Your task to perform on an android device: Toggle the flashlight Image 0: 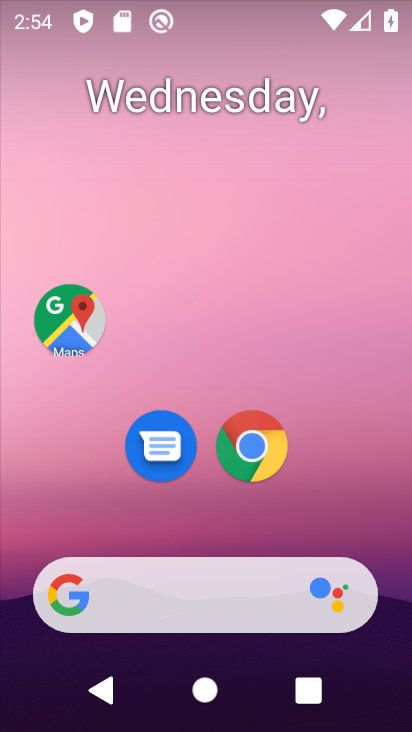
Step 0: drag from (329, 15) to (352, 415)
Your task to perform on an android device: Toggle the flashlight Image 1: 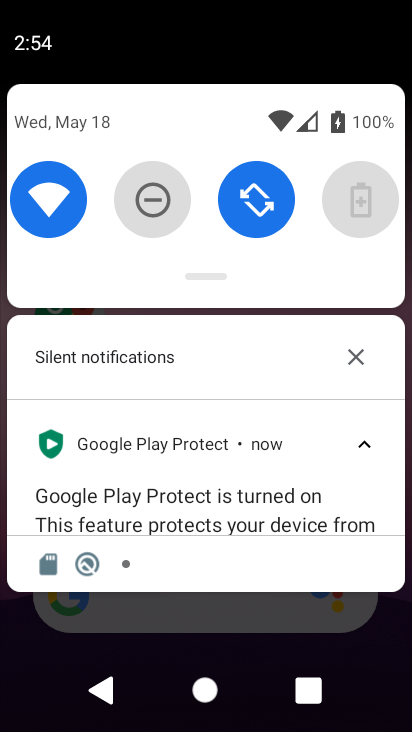
Step 1: drag from (248, 264) to (252, 585)
Your task to perform on an android device: Toggle the flashlight Image 2: 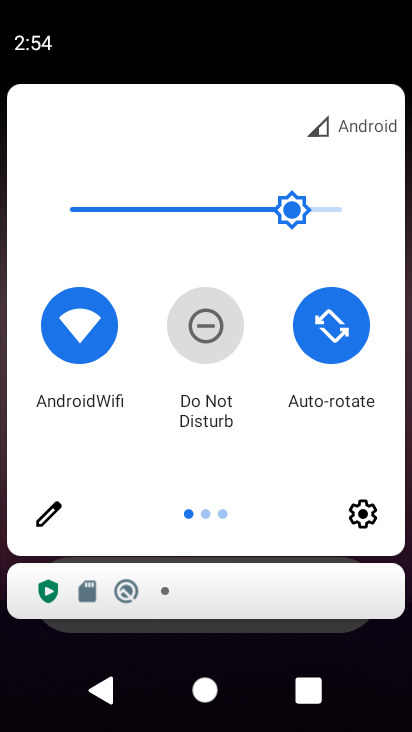
Step 2: click (57, 515)
Your task to perform on an android device: Toggle the flashlight Image 3: 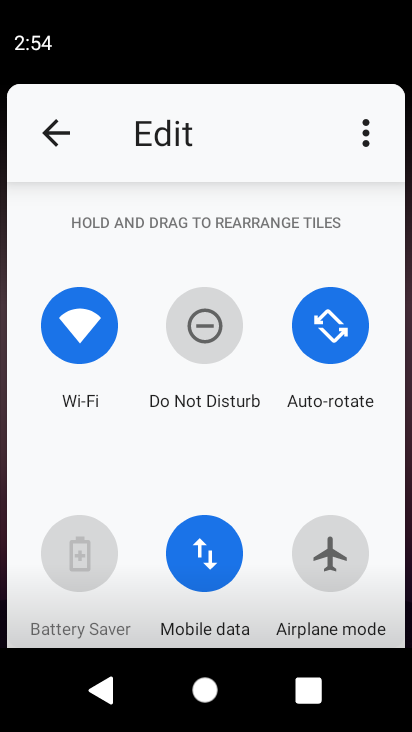
Step 3: task complete